Your task to perform on an android device: Show me productivity apps on the Play Store Image 0: 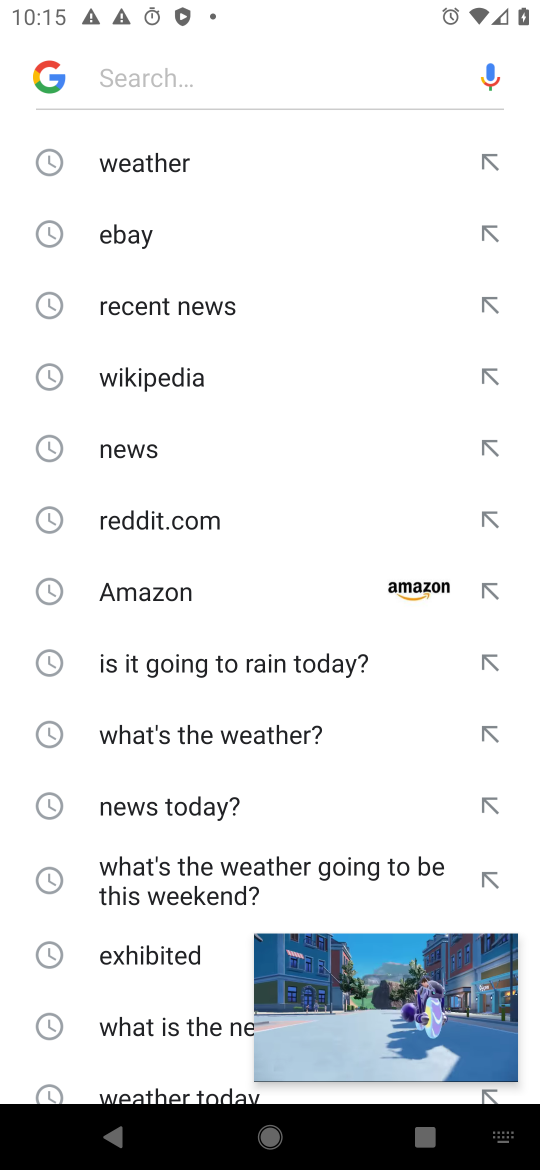
Step 0: press home button
Your task to perform on an android device: Show me productivity apps on the Play Store Image 1: 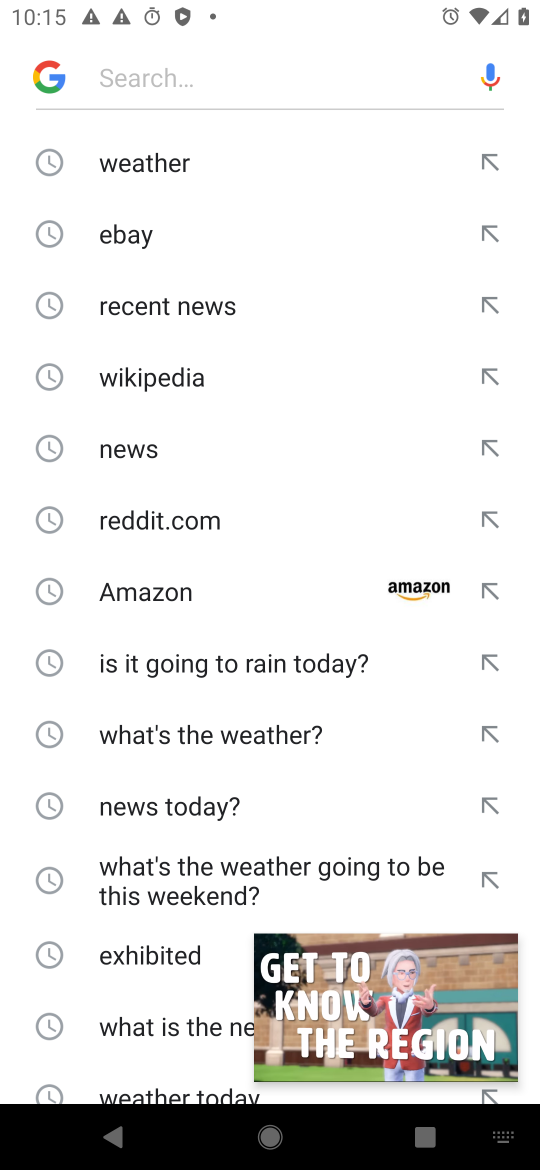
Step 1: drag from (152, 843) to (201, 257)
Your task to perform on an android device: Show me productivity apps on the Play Store Image 2: 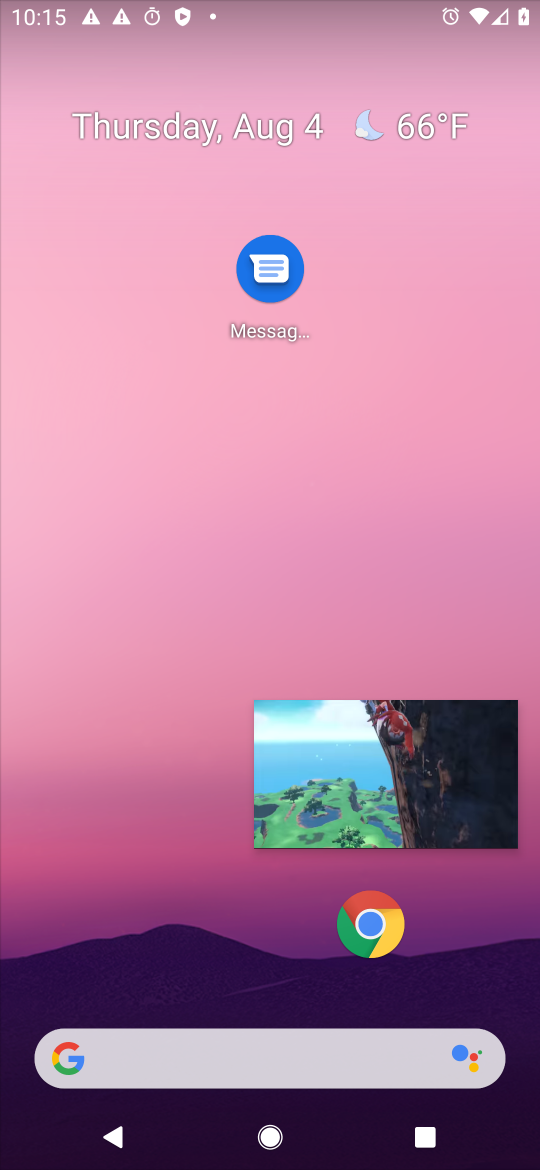
Step 2: drag from (269, 558) to (261, 320)
Your task to perform on an android device: Show me productivity apps on the Play Store Image 3: 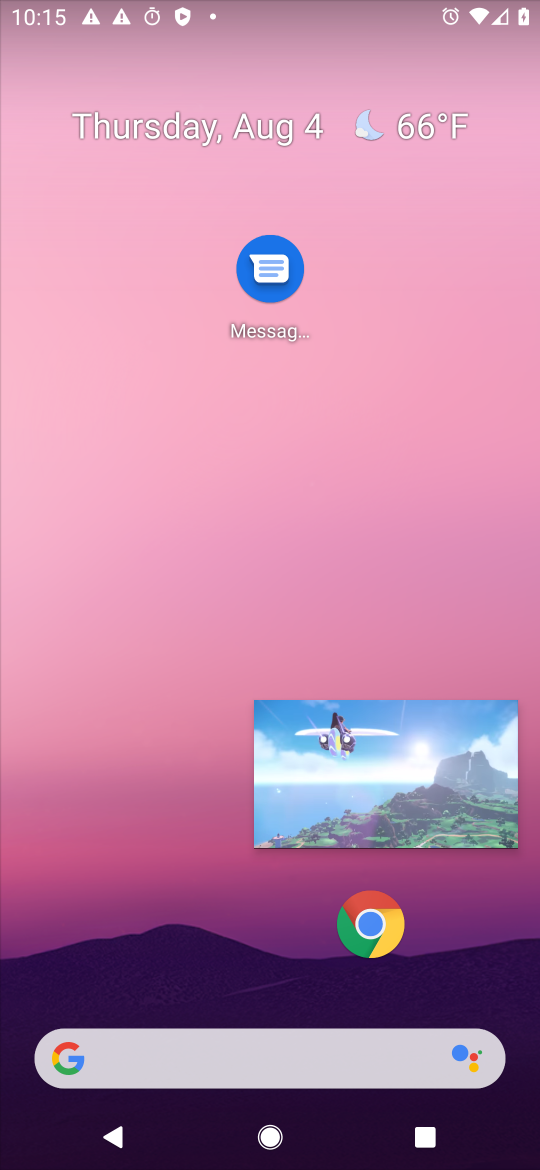
Step 3: drag from (535, 793) to (310, 1149)
Your task to perform on an android device: Show me productivity apps on the Play Store Image 4: 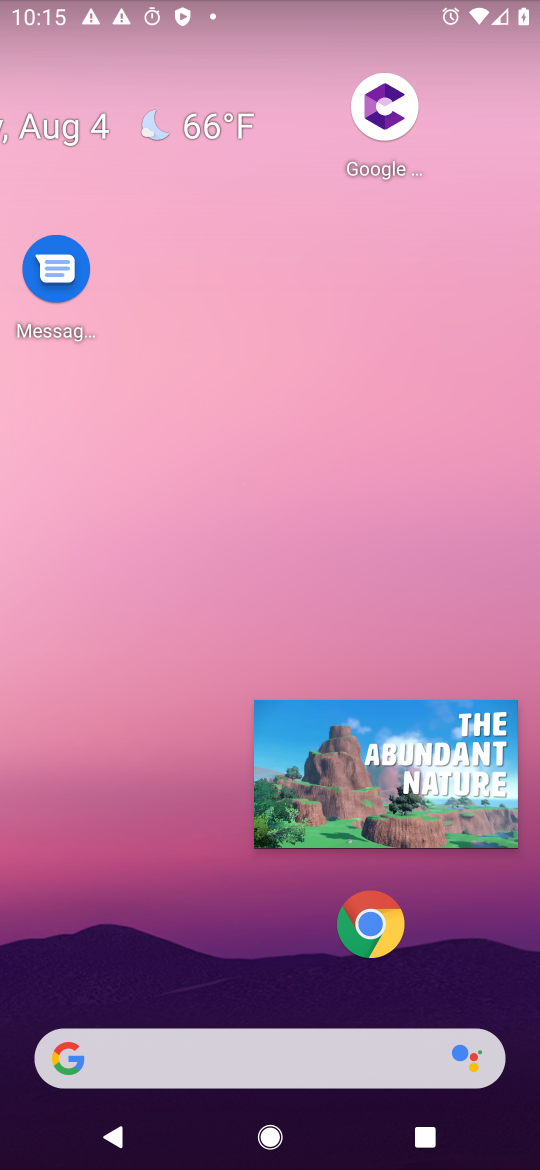
Step 4: drag from (339, 830) to (186, 1160)
Your task to perform on an android device: Show me productivity apps on the Play Store Image 5: 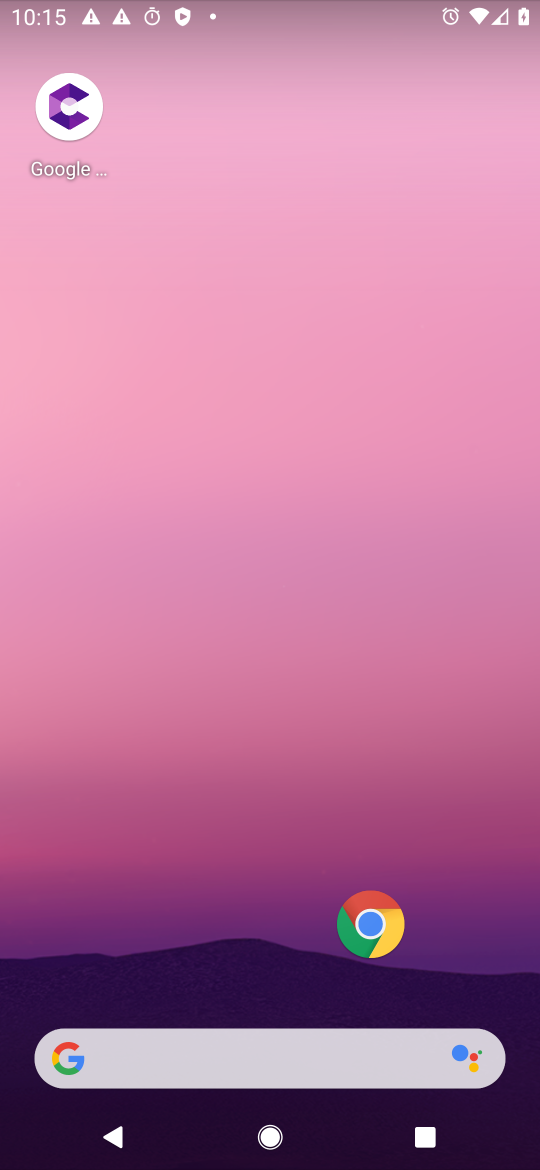
Step 5: drag from (248, 989) to (510, 128)
Your task to perform on an android device: Show me productivity apps on the Play Store Image 6: 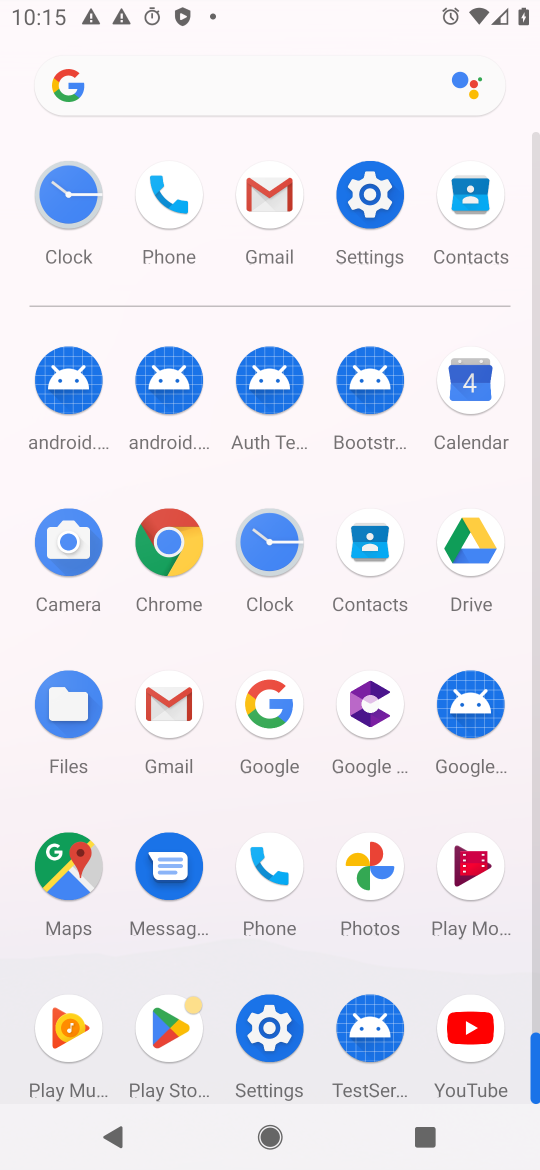
Step 6: click (167, 1005)
Your task to perform on an android device: Show me productivity apps on the Play Store Image 7: 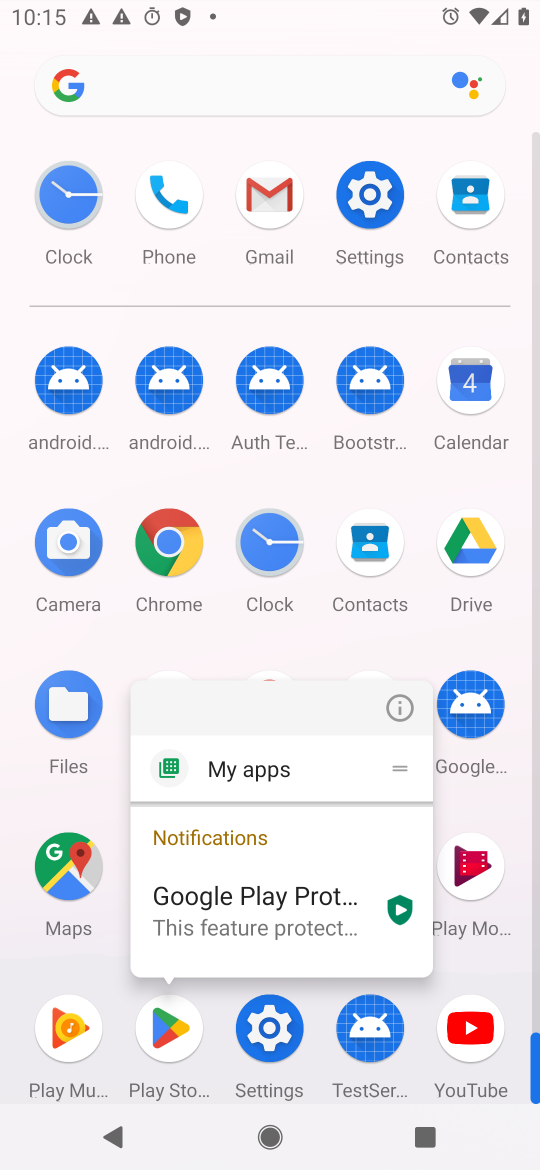
Step 7: click (387, 696)
Your task to perform on an android device: Show me productivity apps on the Play Store Image 8: 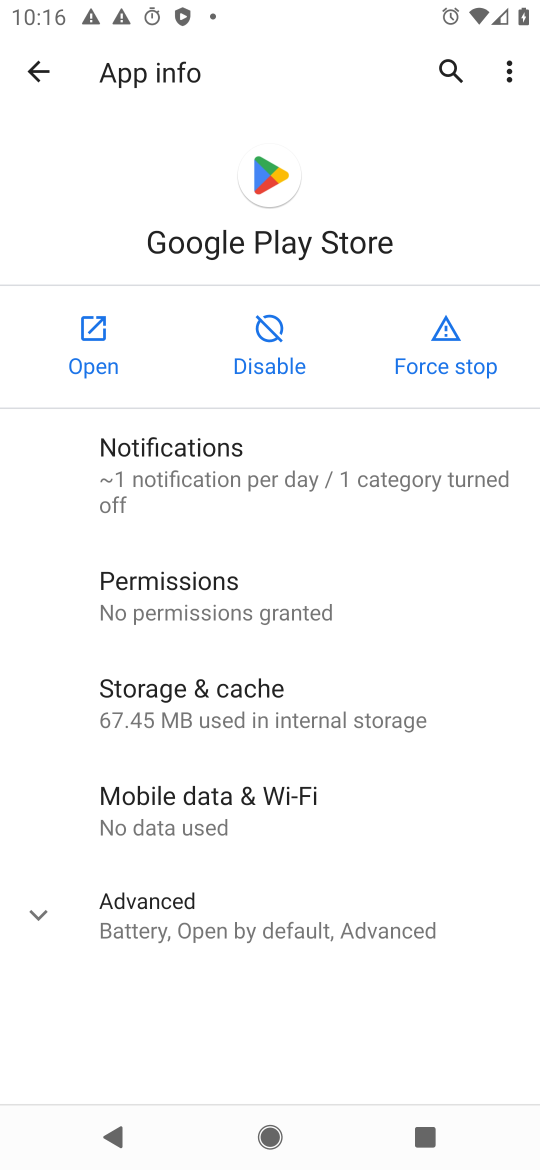
Step 8: click (105, 331)
Your task to perform on an android device: Show me productivity apps on the Play Store Image 9: 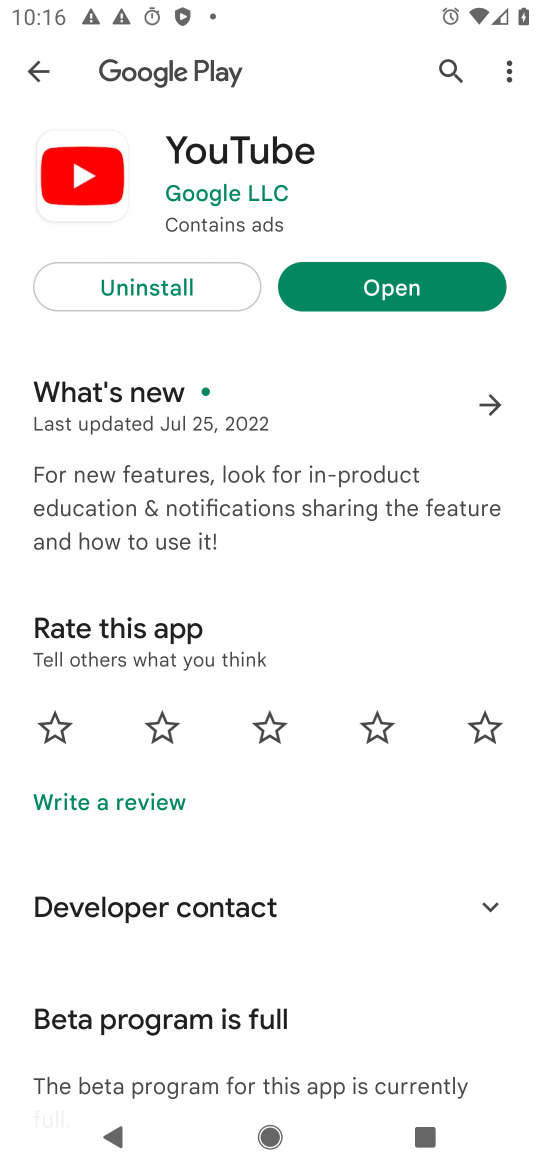
Step 9: drag from (235, 482) to (428, 1043)
Your task to perform on an android device: Show me productivity apps on the Play Store Image 10: 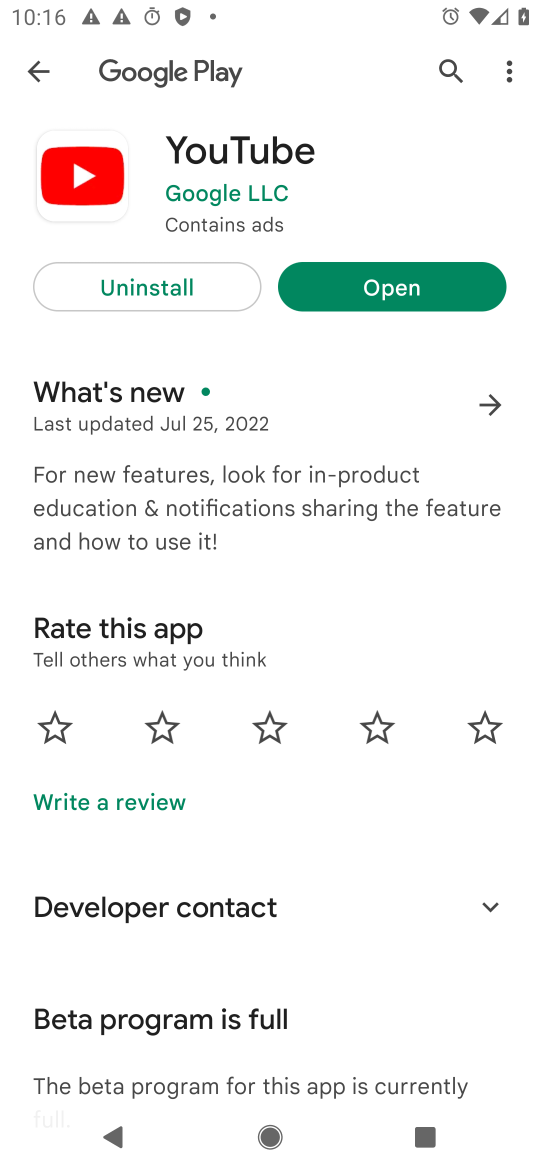
Step 10: click (30, 67)
Your task to perform on an android device: Show me productivity apps on the Play Store Image 11: 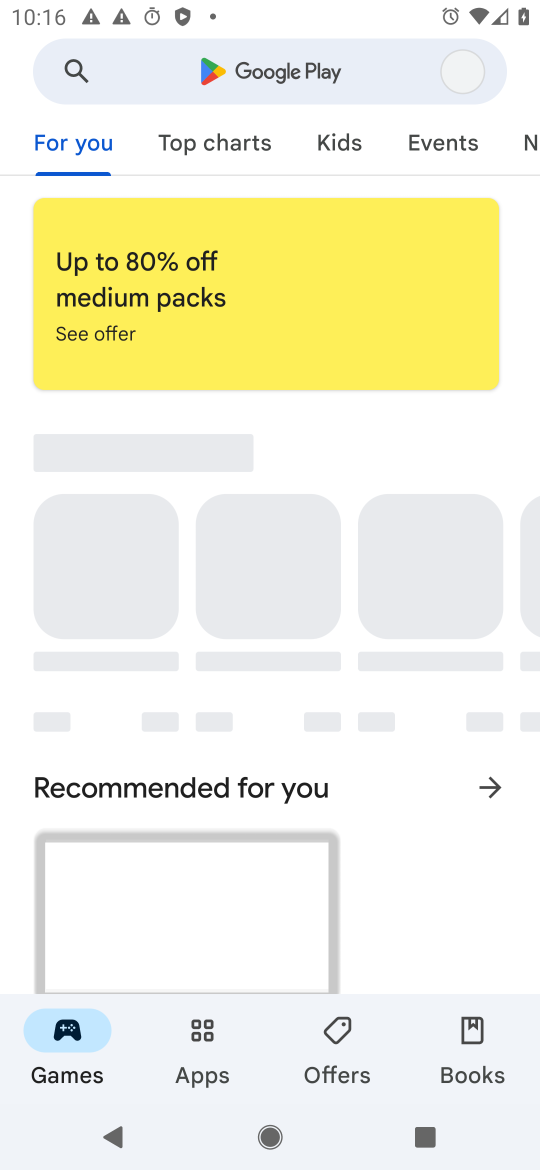
Step 11: task complete